Your task to perform on an android device: toggle show notifications on the lock screen Image 0: 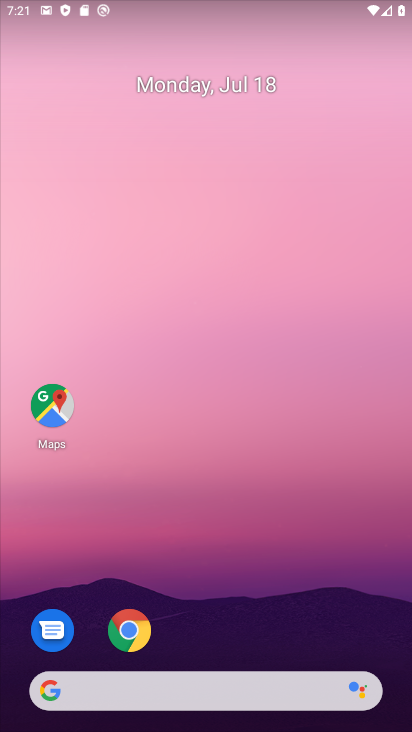
Step 0: drag from (324, 704) to (284, 268)
Your task to perform on an android device: toggle show notifications on the lock screen Image 1: 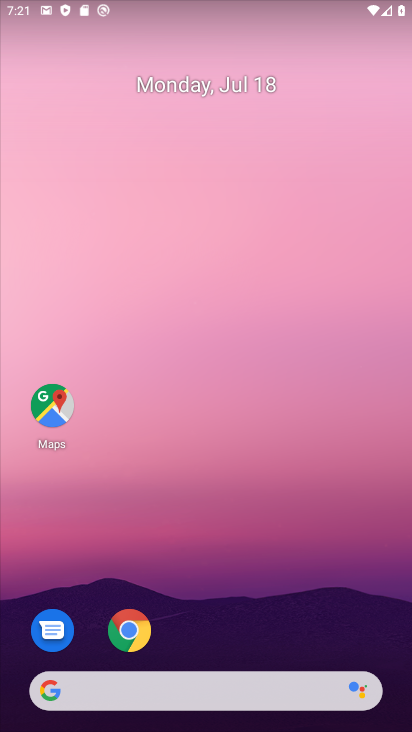
Step 1: drag from (207, 698) to (138, 138)
Your task to perform on an android device: toggle show notifications on the lock screen Image 2: 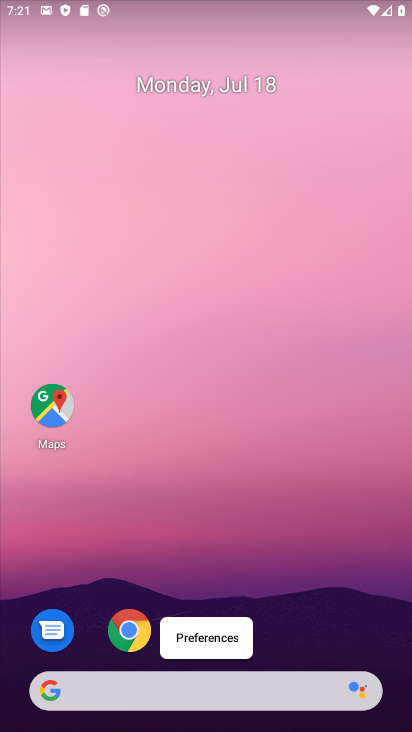
Step 2: drag from (267, 674) to (130, 27)
Your task to perform on an android device: toggle show notifications on the lock screen Image 3: 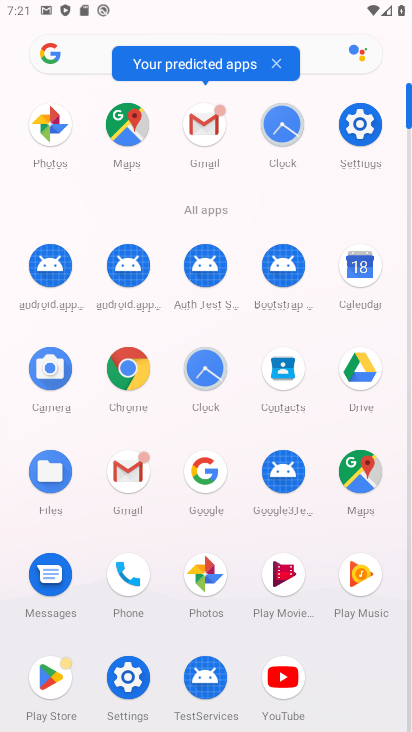
Step 3: click (346, 133)
Your task to perform on an android device: toggle show notifications on the lock screen Image 4: 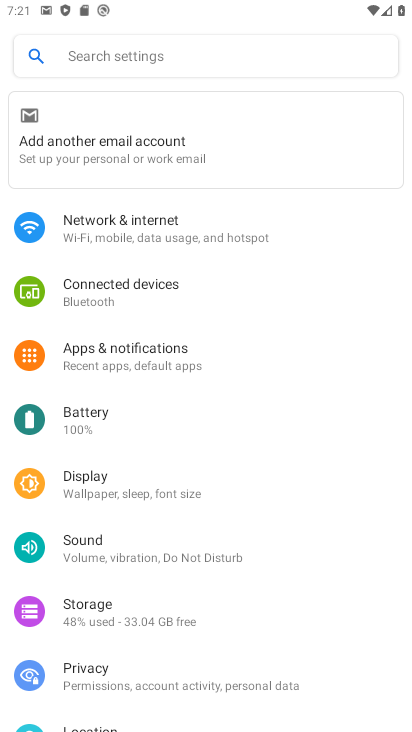
Step 4: click (142, 57)
Your task to perform on an android device: toggle show notifications on the lock screen Image 5: 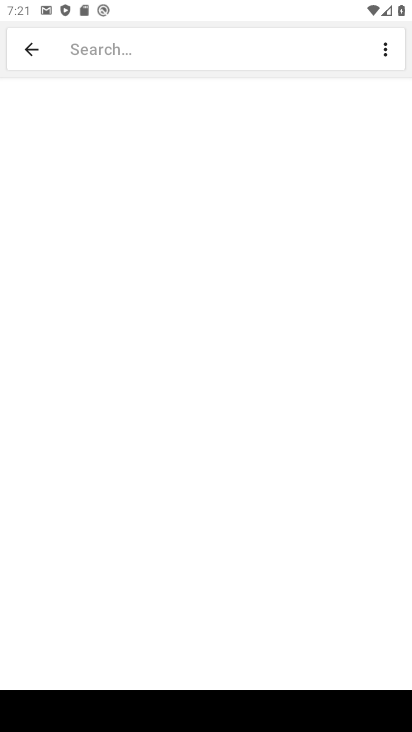
Step 5: drag from (372, 719) to (361, 637)
Your task to perform on an android device: toggle show notifications on the lock screen Image 6: 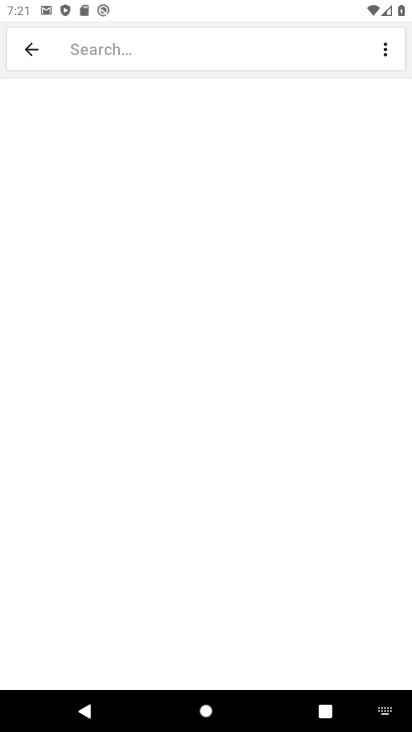
Step 6: click (383, 708)
Your task to perform on an android device: toggle show notifications on the lock screen Image 7: 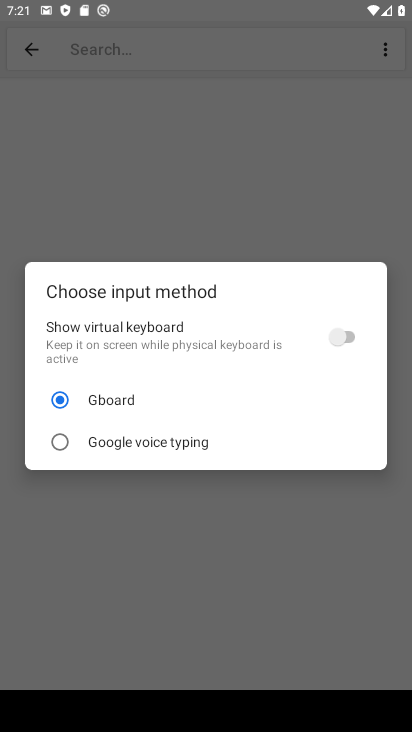
Step 7: click (342, 339)
Your task to perform on an android device: toggle show notifications on the lock screen Image 8: 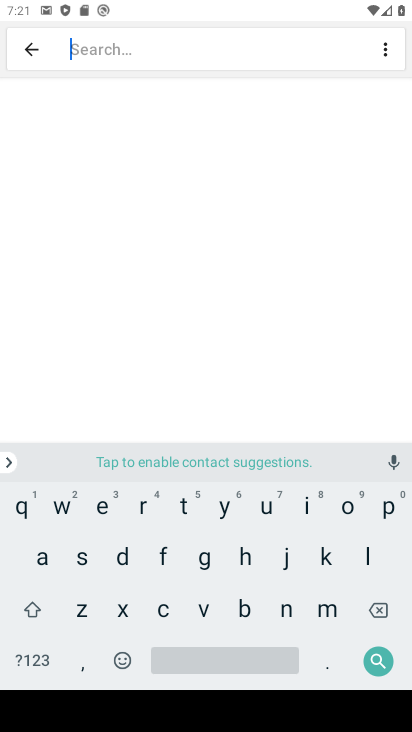
Step 8: click (274, 602)
Your task to perform on an android device: toggle show notifications on the lock screen Image 9: 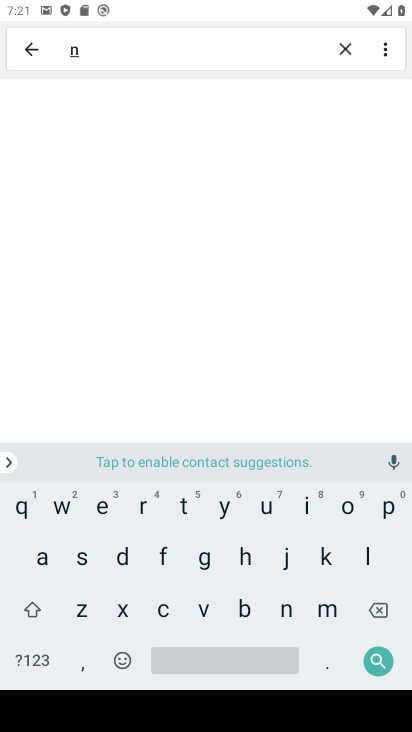
Step 9: click (347, 506)
Your task to perform on an android device: toggle show notifications on the lock screen Image 10: 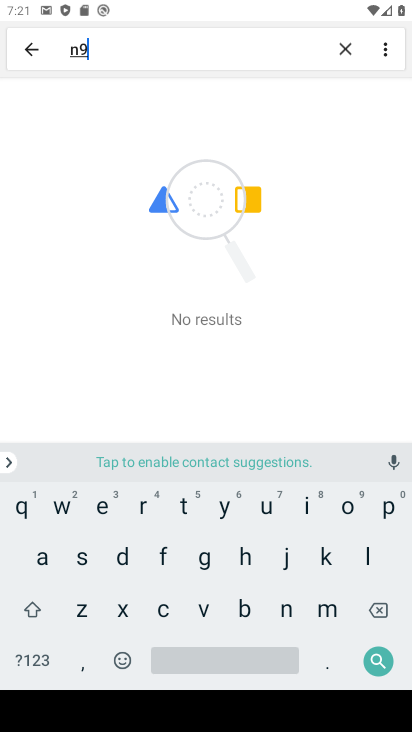
Step 10: click (376, 612)
Your task to perform on an android device: toggle show notifications on the lock screen Image 11: 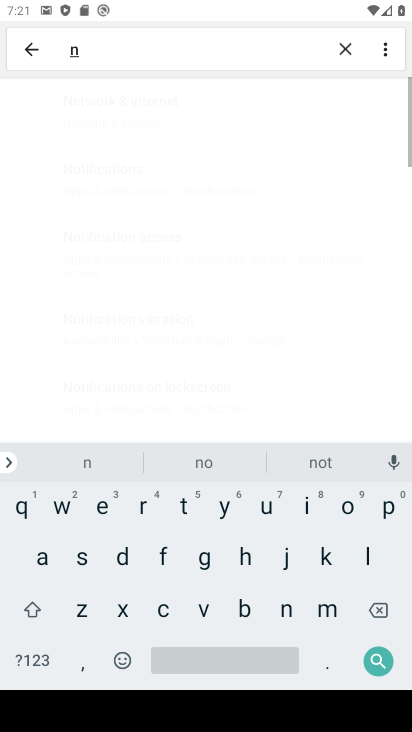
Step 11: click (348, 511)
Your task to perform on an android device: toggle show notifications on the lock screen Image 12: 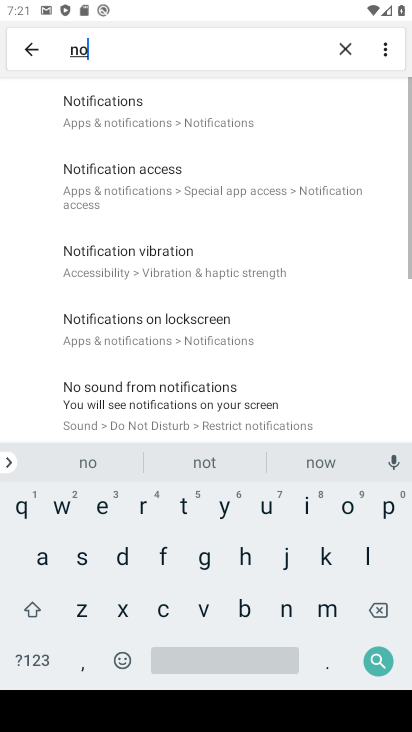
Step 12: click (133, 114)
Your task to perform on an android device: toggle show notifications on the lock screen Image 13: 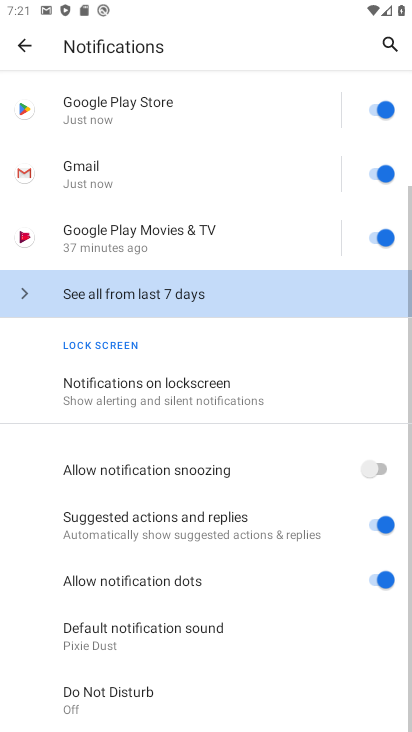
Step 13: click (101, 383)
Your task to perform on an android device: toggle show notifications on the lock screen Image 14: 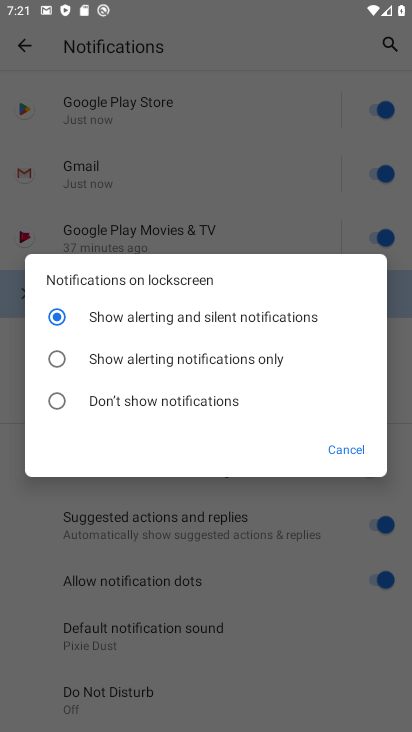
Step 14: task complete